Your task to perform on an android device: turn off location history Image 0: 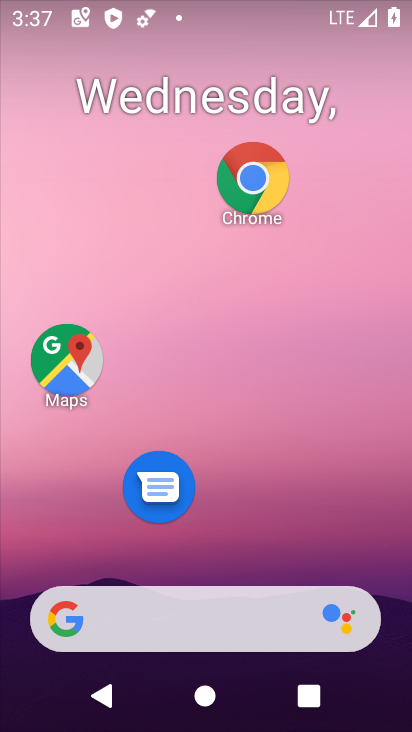
Step 0: drag from (233, 508) to (292, 50)
Your task to perform on an android device: turn off location history Image 1: 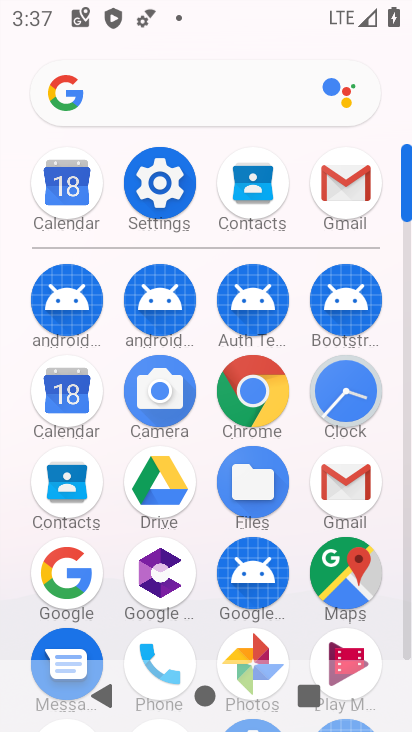
Step 1: click (161, 192)
Your task to perform on an android device: turn off location history Image 2: 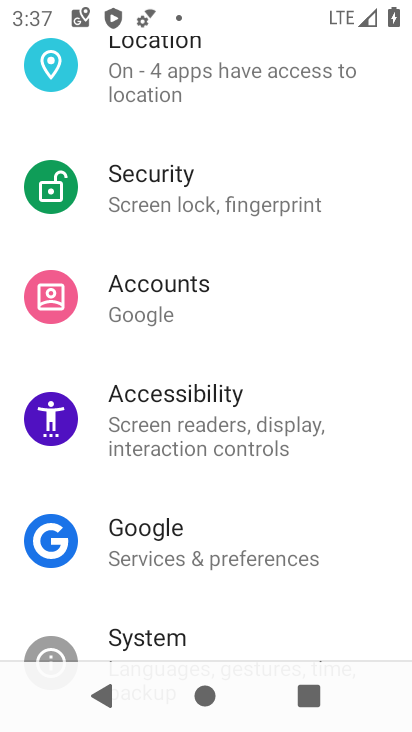
Step 2: click (190, 88)
Your task to perform on an android device: turn off location history Image 3: 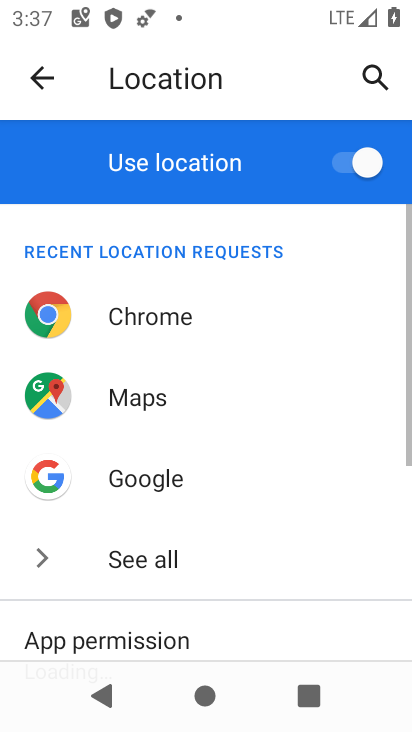
Step 3: drag from (262, 507) to (259, 66)
Your task to perform on an android device: turn off location history Image 4: 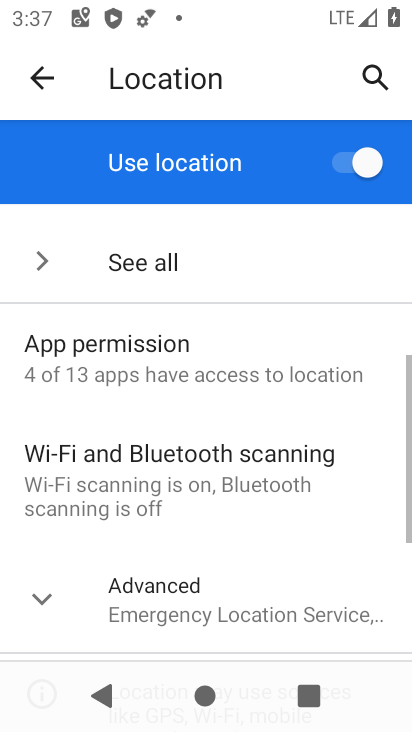
Step 4: click (259, 584)
Your task to perform on an android device: turn off location history Image 5: 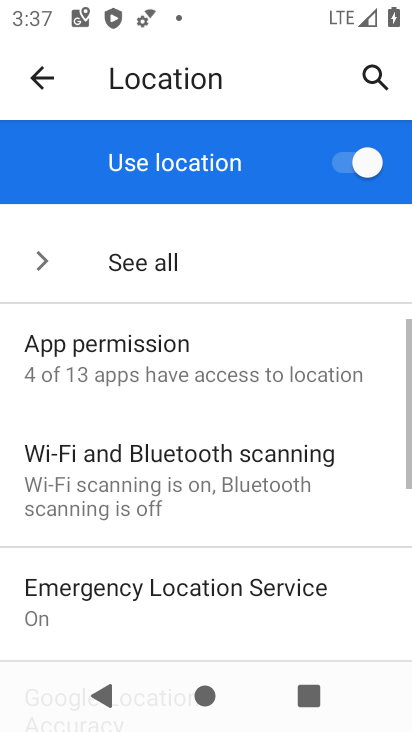
Step 5: drag from (256, 497) to (258, 76)
Your task to perform on an android device: turn off location history Image 6: 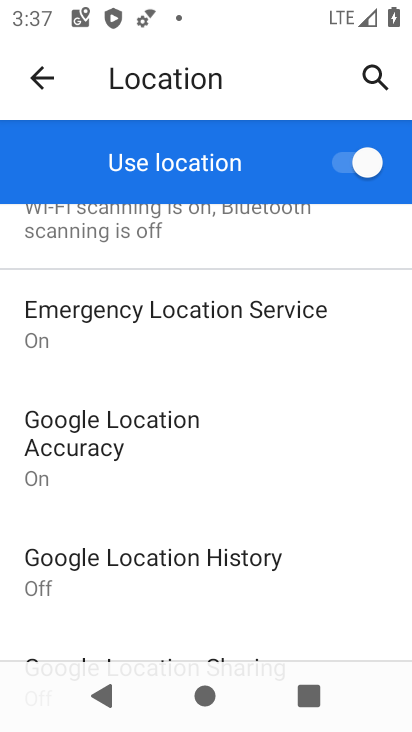
Step 6: click (184, 578)
Your task to perform on an android device: turn off location history Image 7: 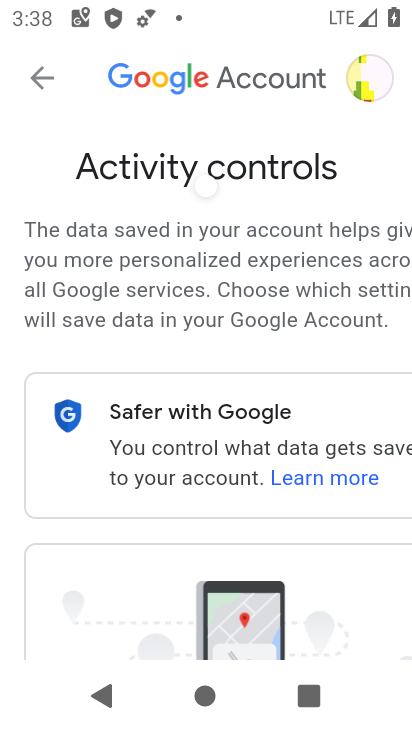
Step 7: drag from (255, 601) to (233, 108)
Your task to perform on an android device: turn off location history Image 8: 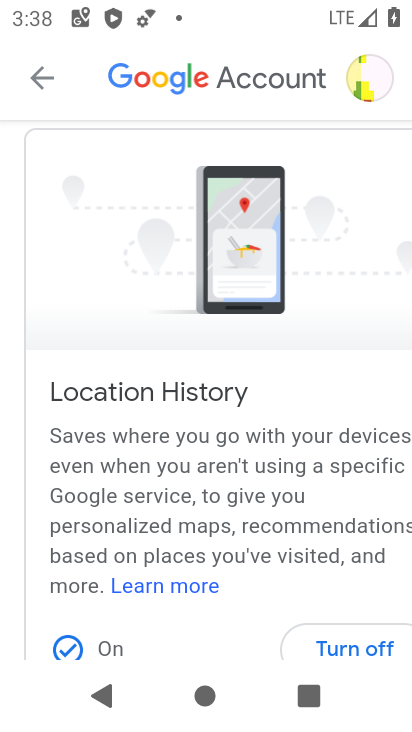
Step 8: drag from (282, 517) to (268, 118)
Your task to perform on an android device: turn off location history Image 9: 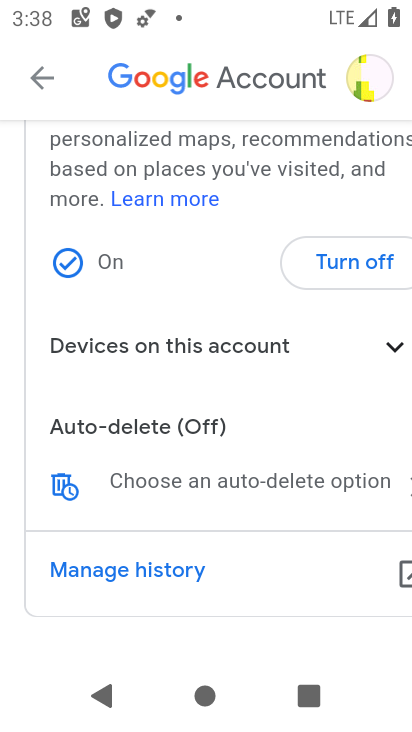
Step 9: click (359, 265)
Your task to perform on an android device: turn off location history Image 10: 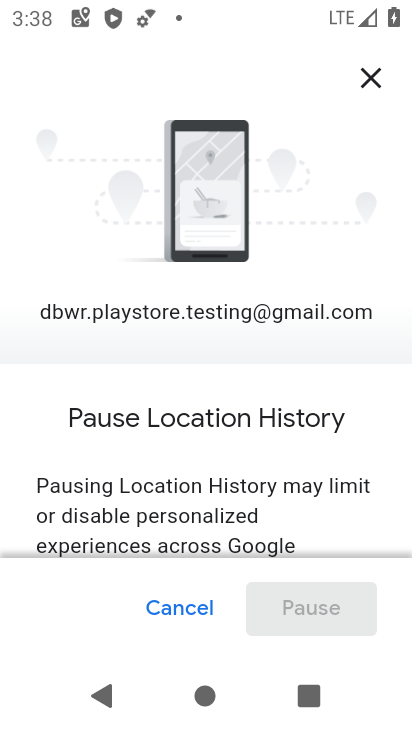
Step 10: drag from (273, 519) to (242, 50)
Your task to perform on an android device: turn off location history Image 11: 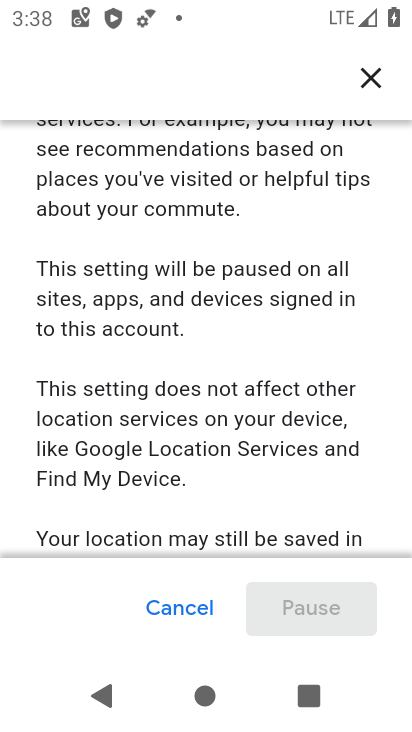
Step 11: drag from (353, 537) to (331, 36)
Your task to perform on an android device: turn off location history Image 12: 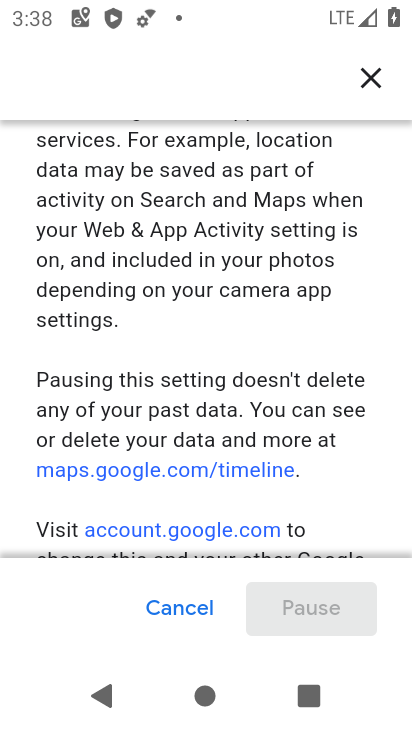
Step 12: drag from (351, 530) to (343, 23)
Your task to perform on an android device: turn off location history Image 13: 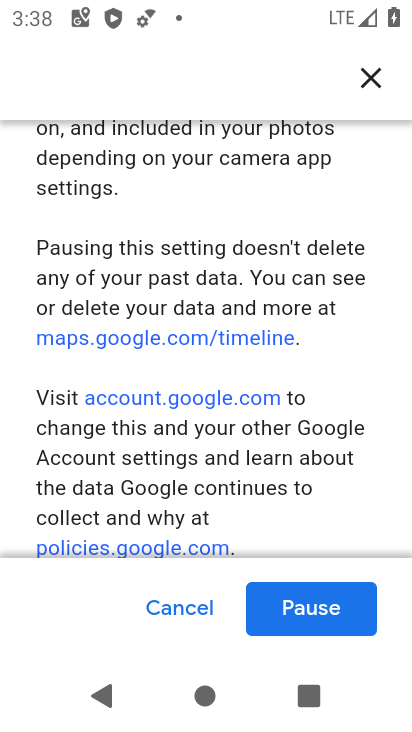
Step 13: click (357, 612)
Your task to perform on an android device: turn off location history Image 14: 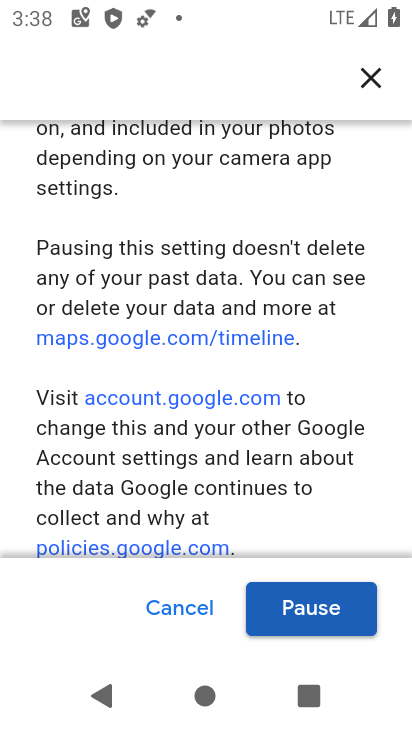
Step 14: click (295, 606)
Your task to perform on an android device: turn off location history Image 15: 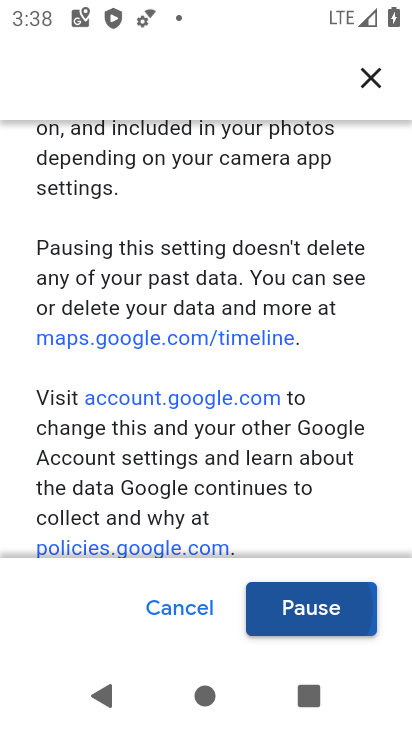
Step 15: click (295, 606)
Your task to perform on an android device: turn off location history Image 16: 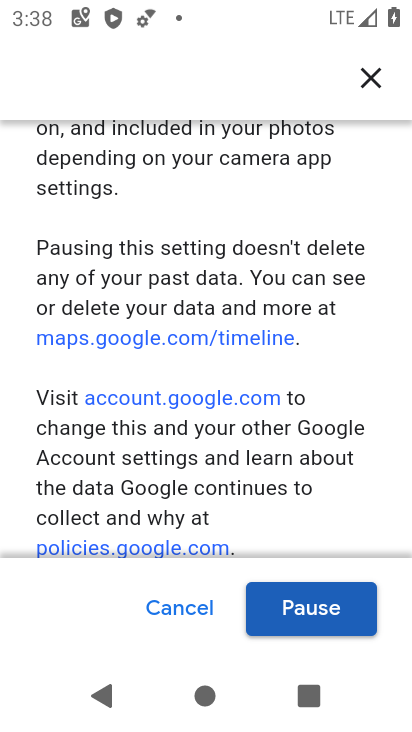
Step 16: click (340, 612)
Your task to perform on an android device: turn off location history Image 17: 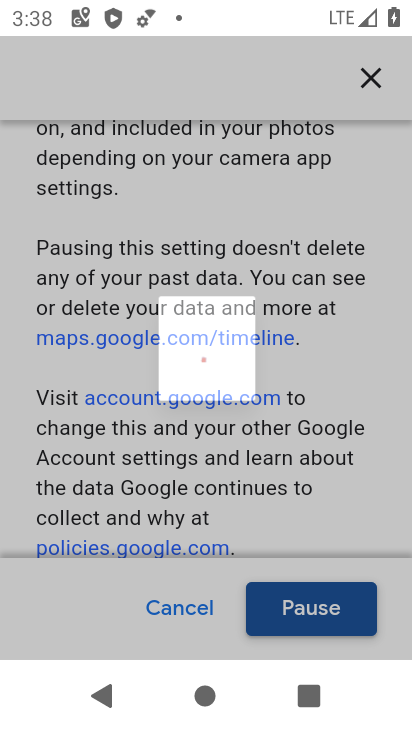
Step 17: click (317, 598)
Your task to perform on an android device: turn off location history Image 18: 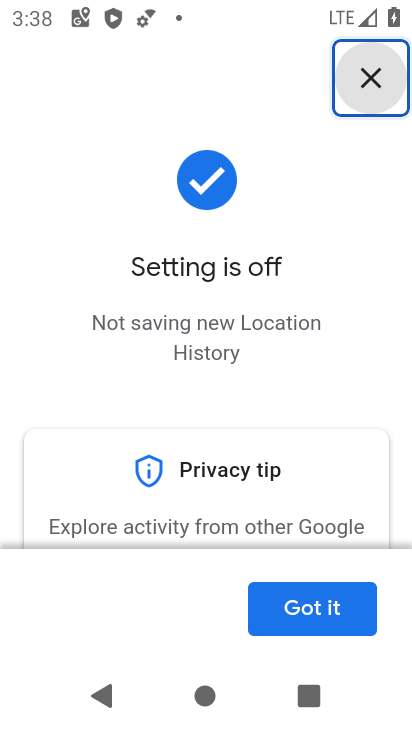
Step 18: task complete